Your task to perform on an android device: stop showing notifications on the lock screen Image 0: 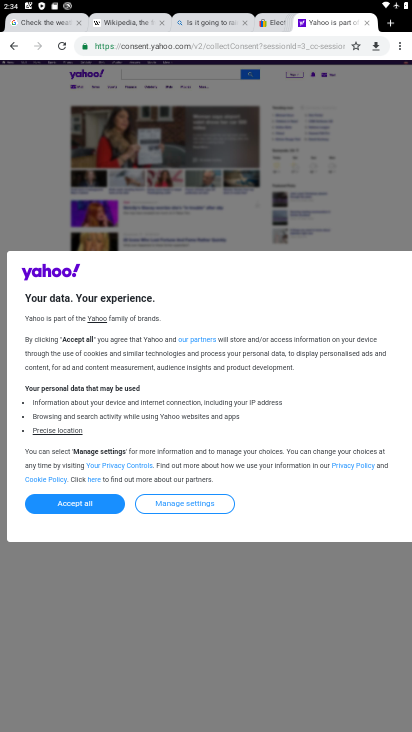
Step 0: task complete